Your task to perform on an android device: Open CNN.com Image 0: 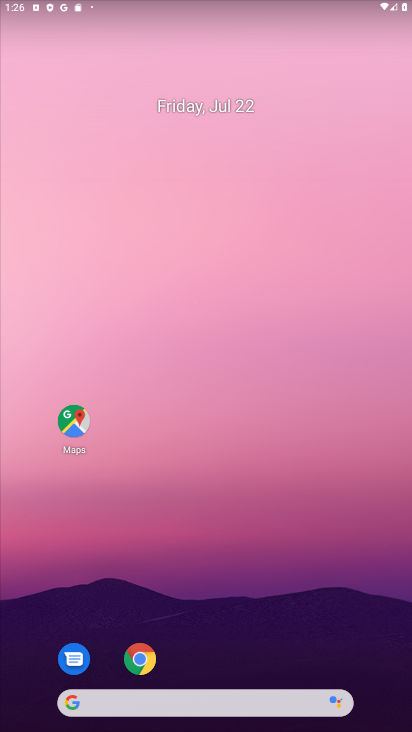
Step 0: click (150, 668)
Your task to perform on an android device: Open CNN.com Image 1: 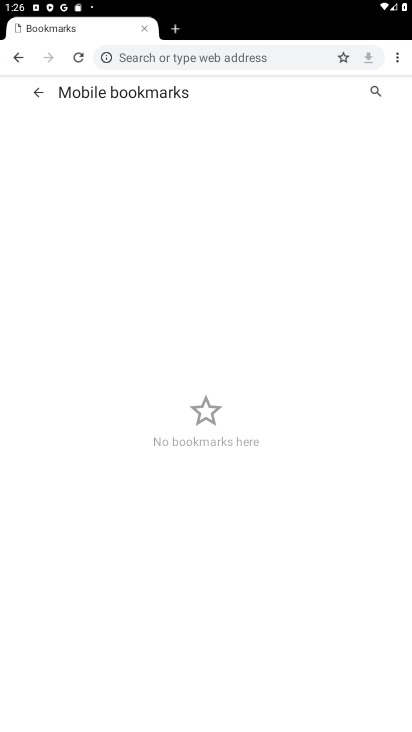
Step 1: click (186, 60)
Your task to perform on an android device: Open CNN.com Image 2: 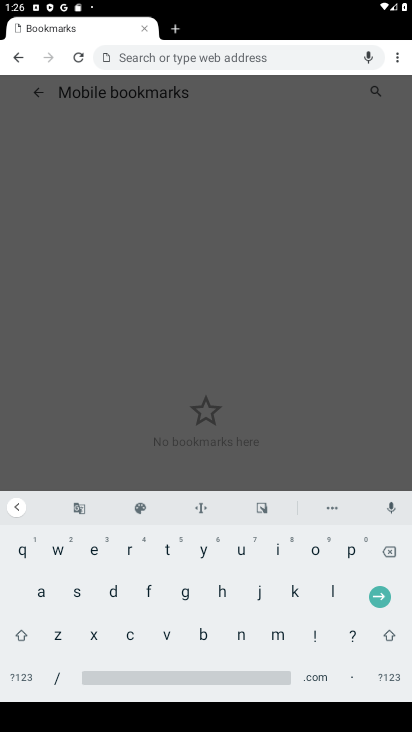
Step 2: click (125, 639)
Your task to perform on an android device: Open CNN.com Image 3: 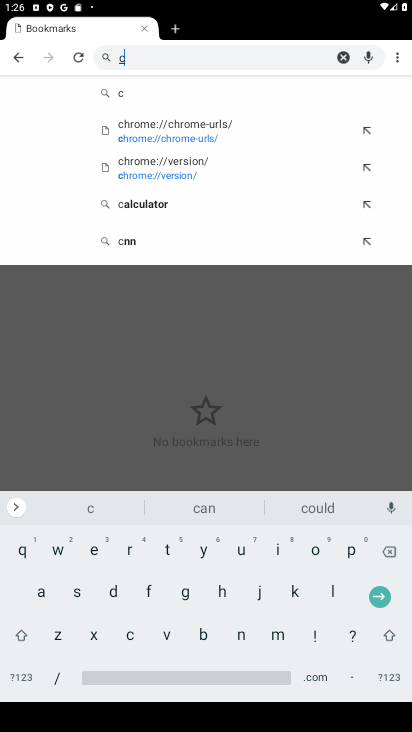
Step 3: click (238, 637)
Your task to perform on an android device: Open CNN.com Image 4: 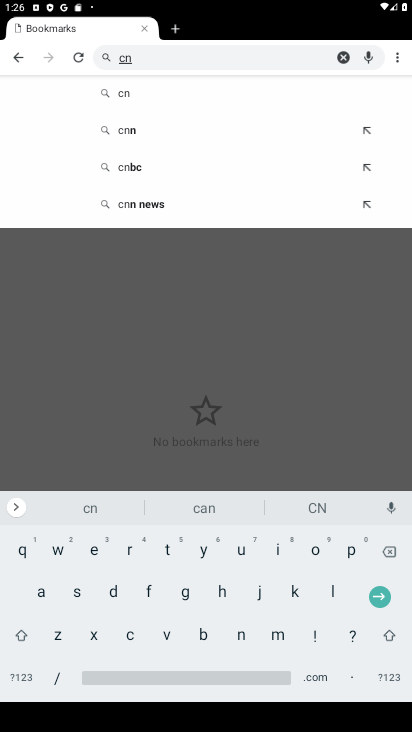
Step 4: click (238, 637)
Your task to perform on an android device: Open CNN.com Image 5: 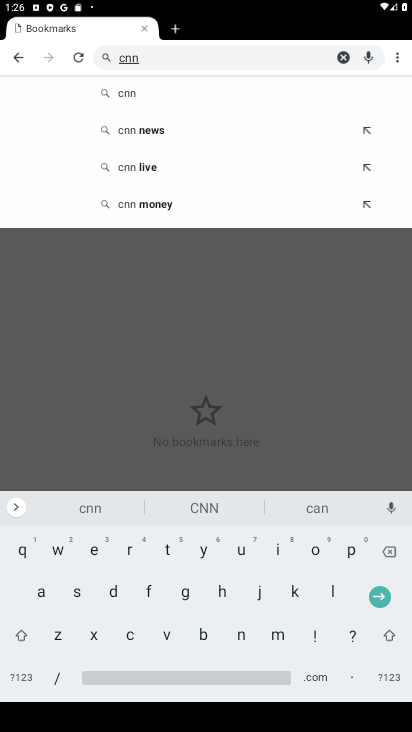
Step 5: click (135, 95)
Your task to perform on an android device: Open CNN.com Image 6: 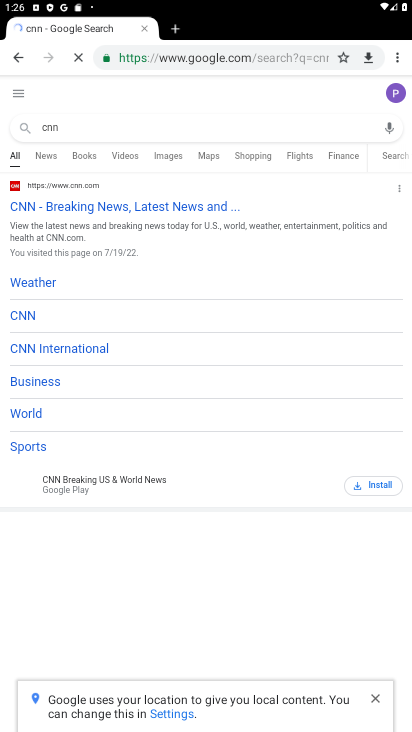
Step 6: click (51, 201)
Your task to perform on an android device: Open CNN.com Image 7: 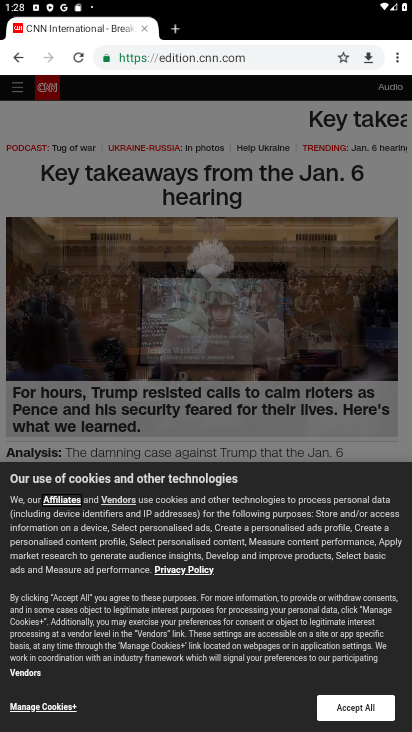
Step 7: task complete